Your task to perform on an android device: set default search engine in the chrome app Image 0: 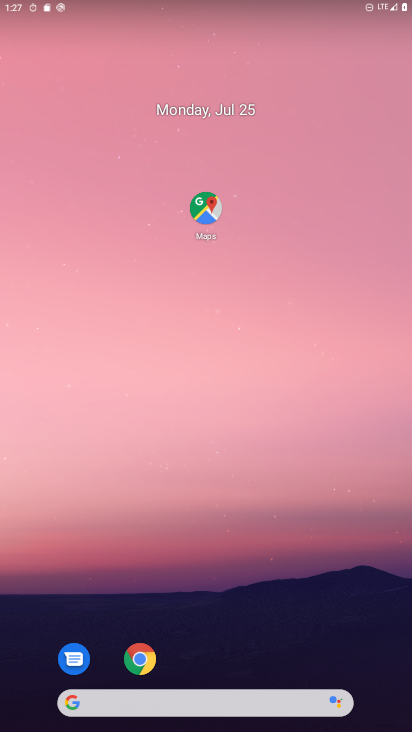
Step 0: click (141, 656)
Your task to perform on an android device: set default search engine in the chrome app Image 1: 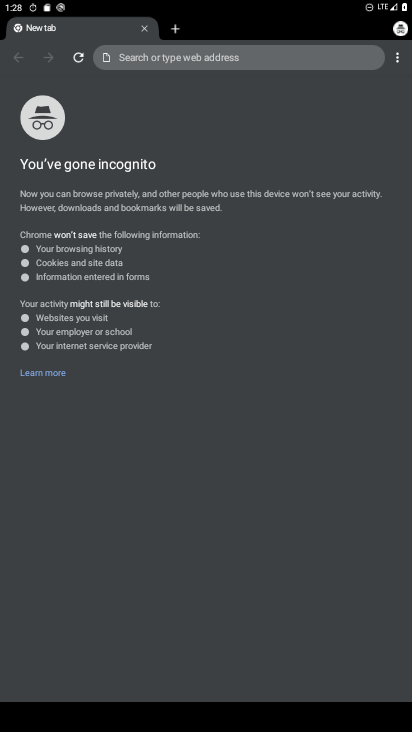
Step 1: press back button
Your task to perform on an android device: set default search engine in the chrome app Image 2: 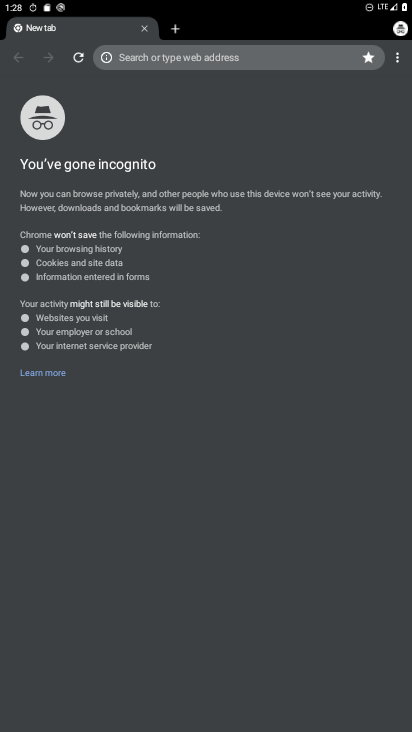
Step 2: press home button
Your task to perform on an android device: set default search engine in the chrome app Image 3: 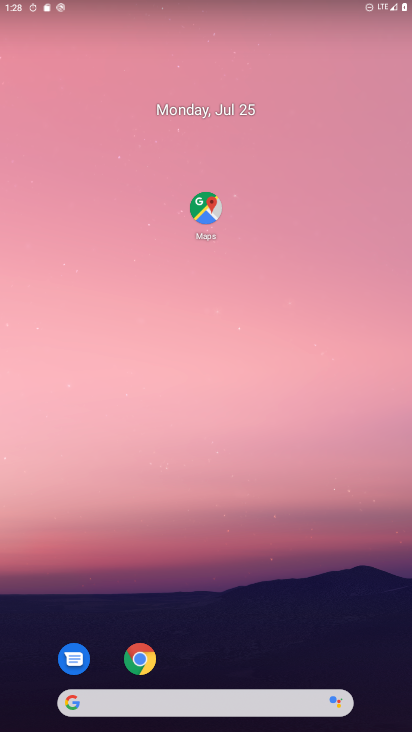
Step 3: click (146, 659)
Your task to perform on an android device: set default search engine in the chrome app Image 4: 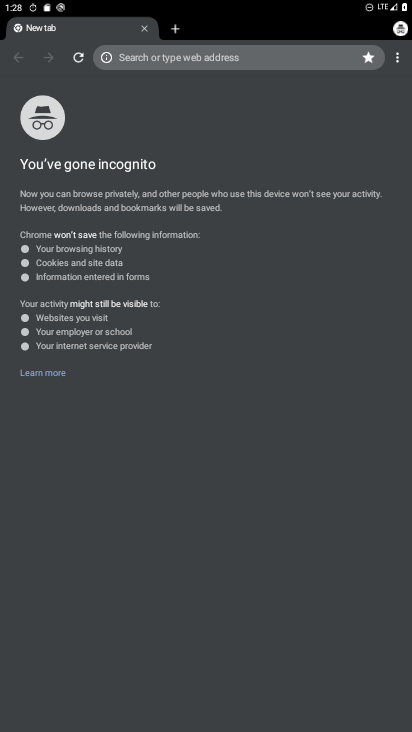
Step 4: click (396, 56)
Your task to perform on an android device: set default search engine in the chrome app Image 5: 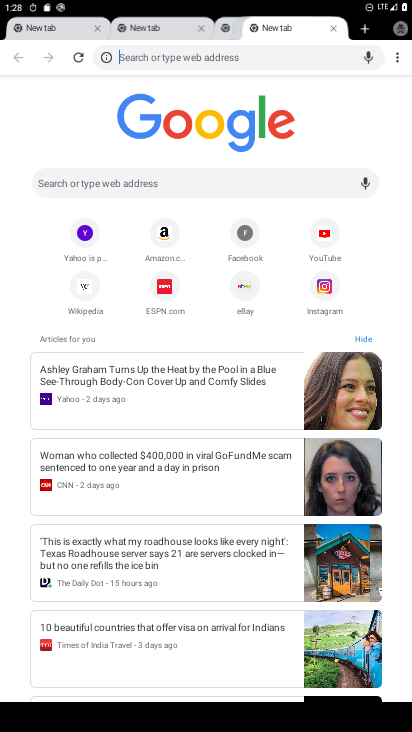
Step 5: click (409, 62)
Your task to perform on an android device: set default search engine in the chrome app Image 6: 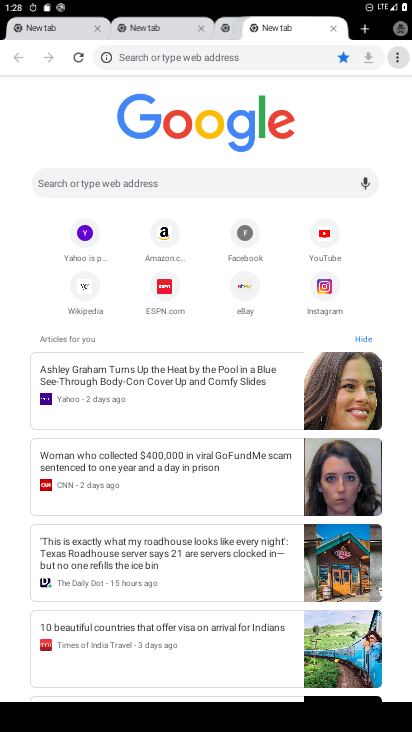
Step 6: click (403, 58)
Your task to perform on an android device: set default search engine in the chrome app Image 7: 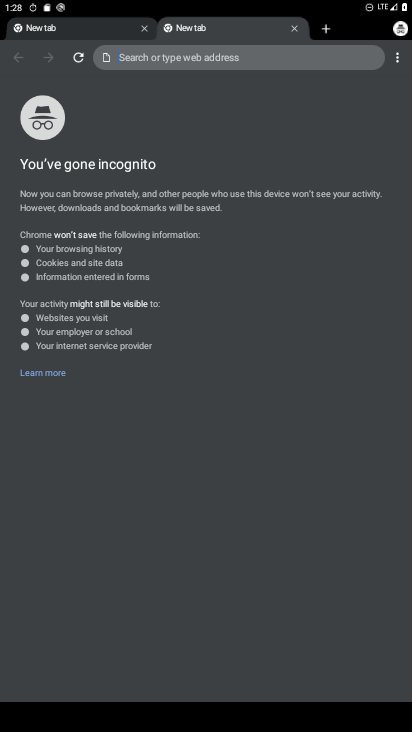
Step 7: click (323, 25)
Your task to perform on an android device: set default search engine in the chrome app Image 8: 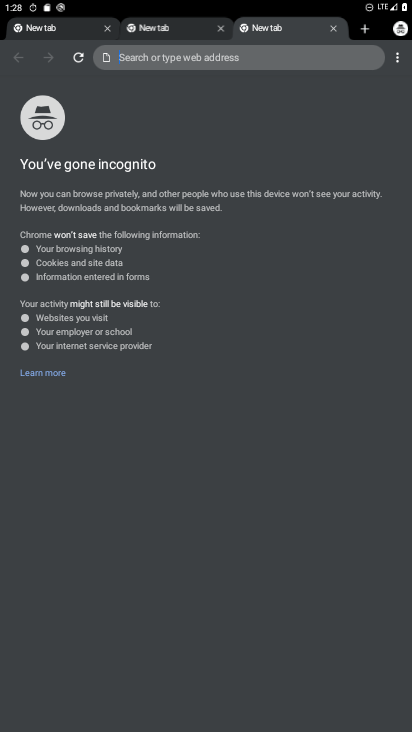
Step 8: task complete